Your task to perform on an android device: turn off location Image 0: 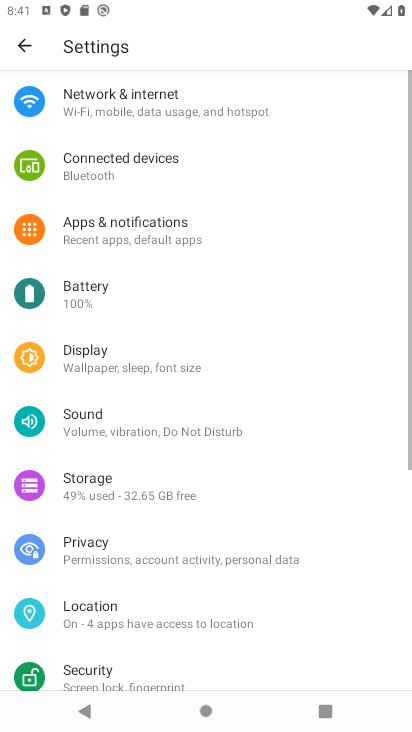
Step 0: press home button
Your task to perform on an android device: turn off location Image 1: 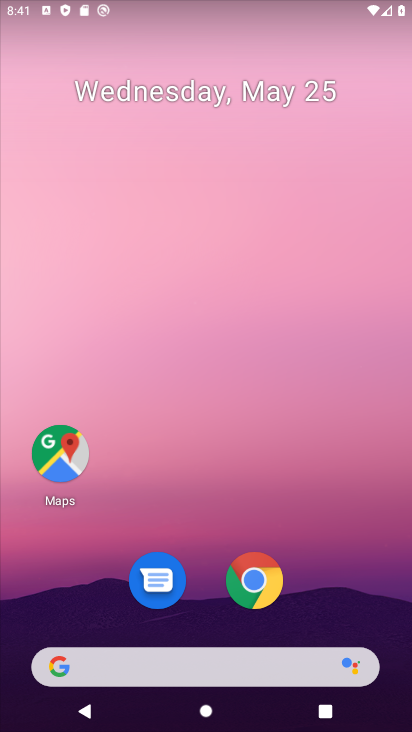
Step 1: drag from (23, 543) to (161, 128)
Your task to perform on an android device: turn off location Image 2: 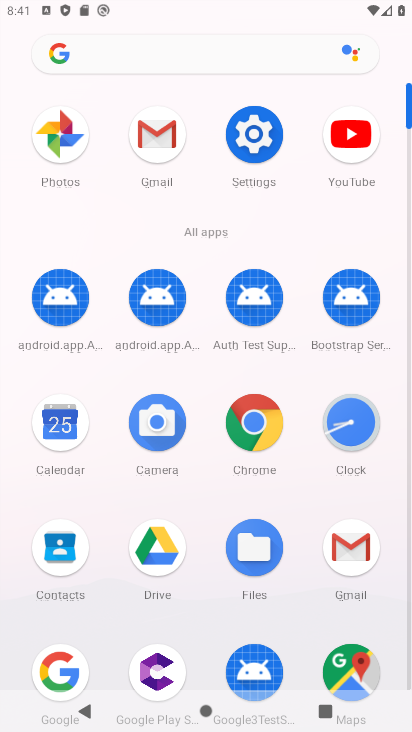
Step 2: click (234, 136)
Your task to perform on an android device: turn off location Image 3: 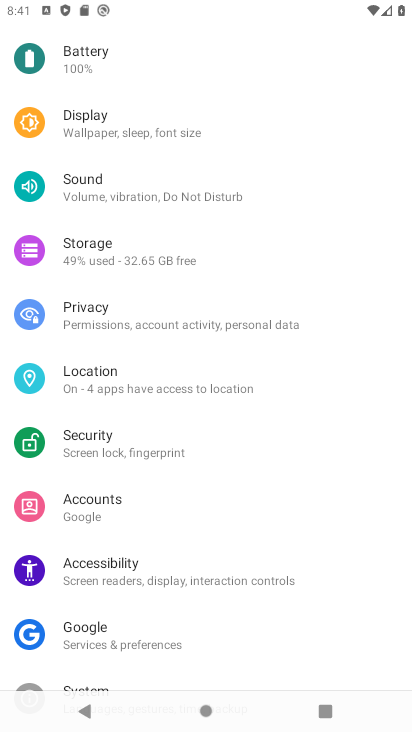
Step 3: click (158, 369)
Your task to perform on an android device: turn off location Image 4: 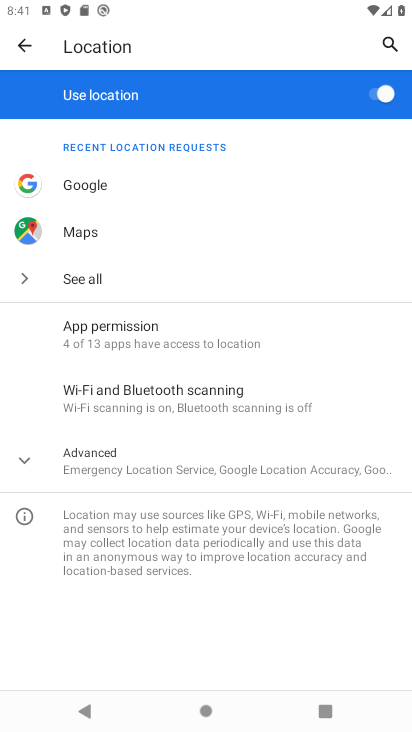
Step 4: click (392, 93)
Your task to perform on an android device: turn off location Image 5: 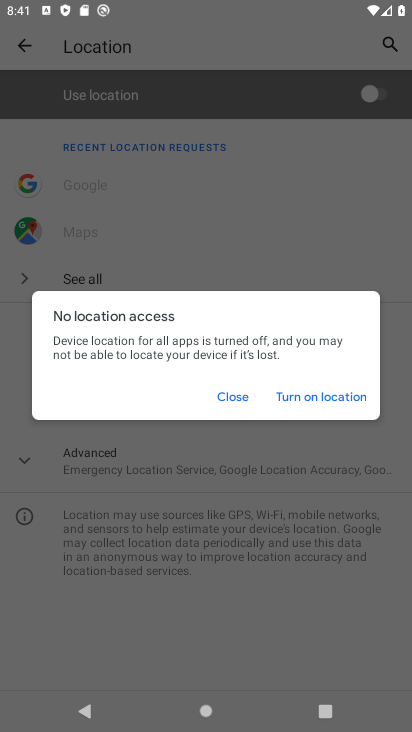
Step 5: task complete